Your task to perform on an android device: Open Reddit.com Image 0: 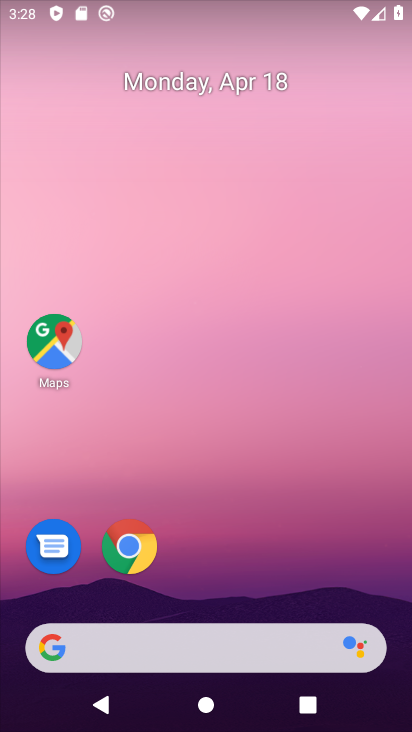
Step 0: click (134, 543)
Your task to perform on an android device: Open Reddit.com Image 1: 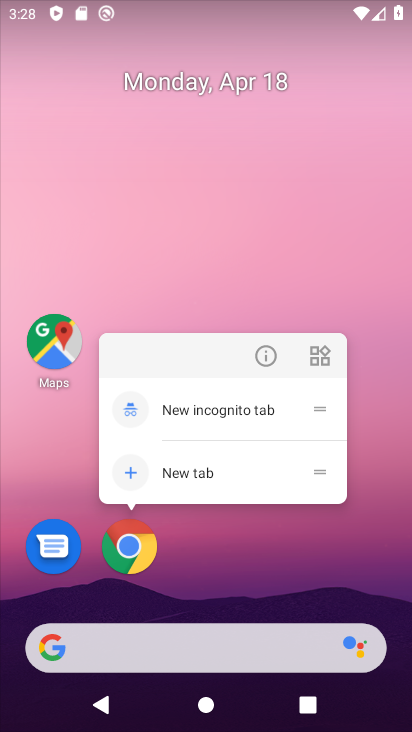
Step 1: click (126, 545)
Your task to perform on an android device: Open Reddit.com Image 2: 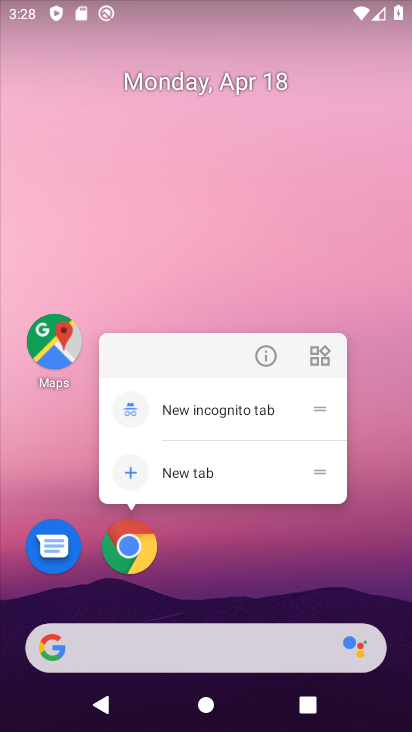
Step 2: click (124, 544)
Your task to perform on an android device: Open Reddit.com Image 3: 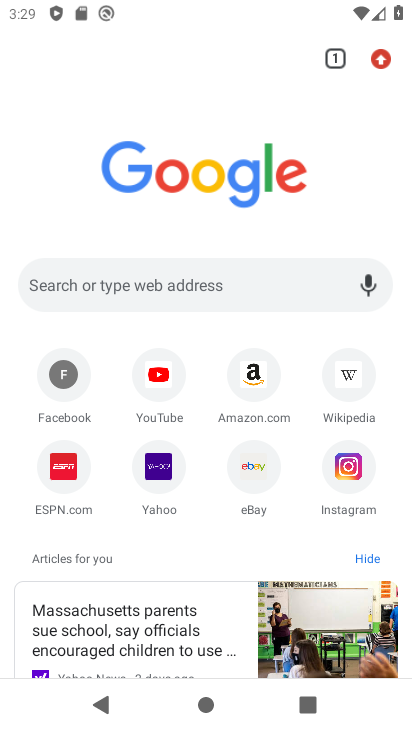
Step 3: click (128, 276)
Your task to perform on an android device: Open Reddit.com Image 4: 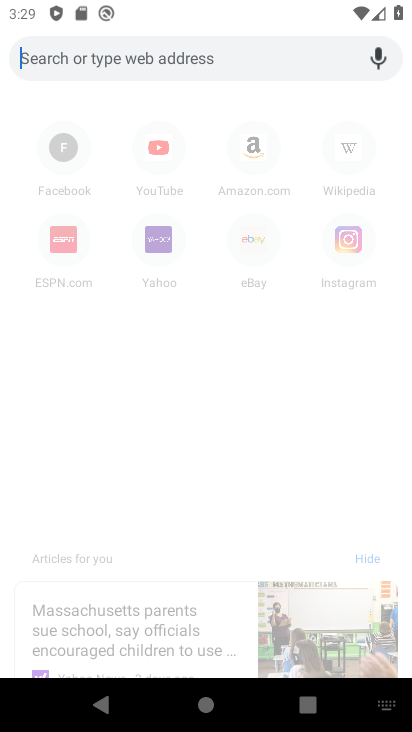
Step 4: type "reddit.com"
Your task to perform on an android device: Open Reddit.com Image 5: 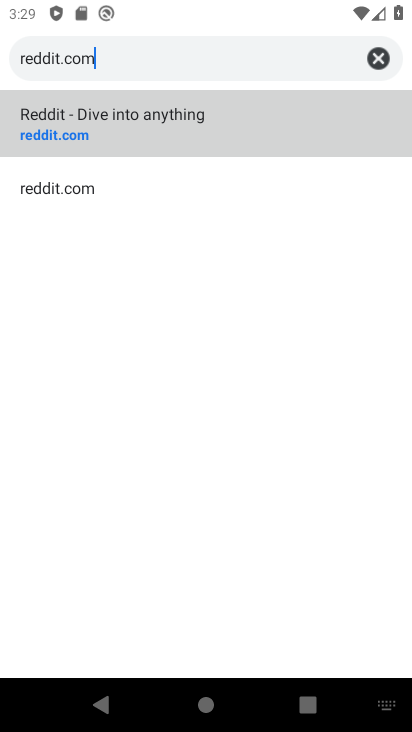
Step 5: click (106, 127)
Your task to perform on an android device: Open Reddit.com Image 6: 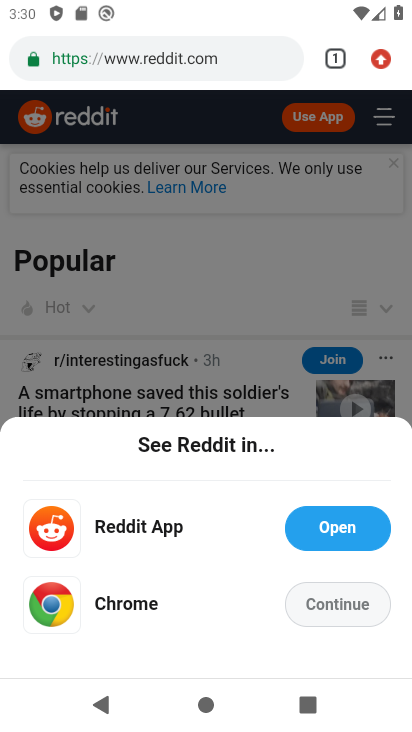
Step 6: click (354, 624)
Your task to perform on an android device: Open Reddit.com Image 7: 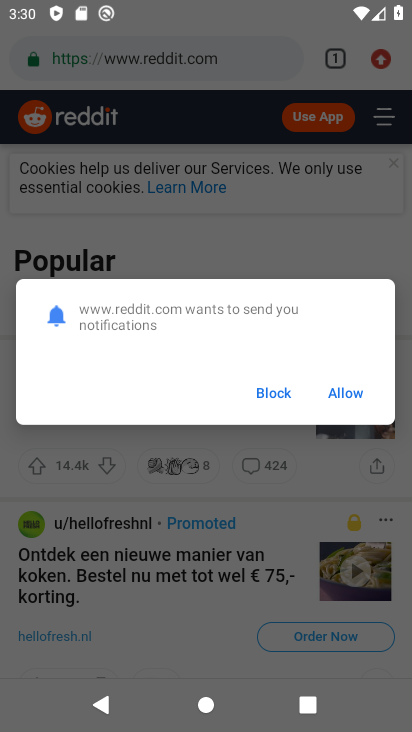
Step 7: task complete